Your task to perform on an android device: toggle location history Image 0: 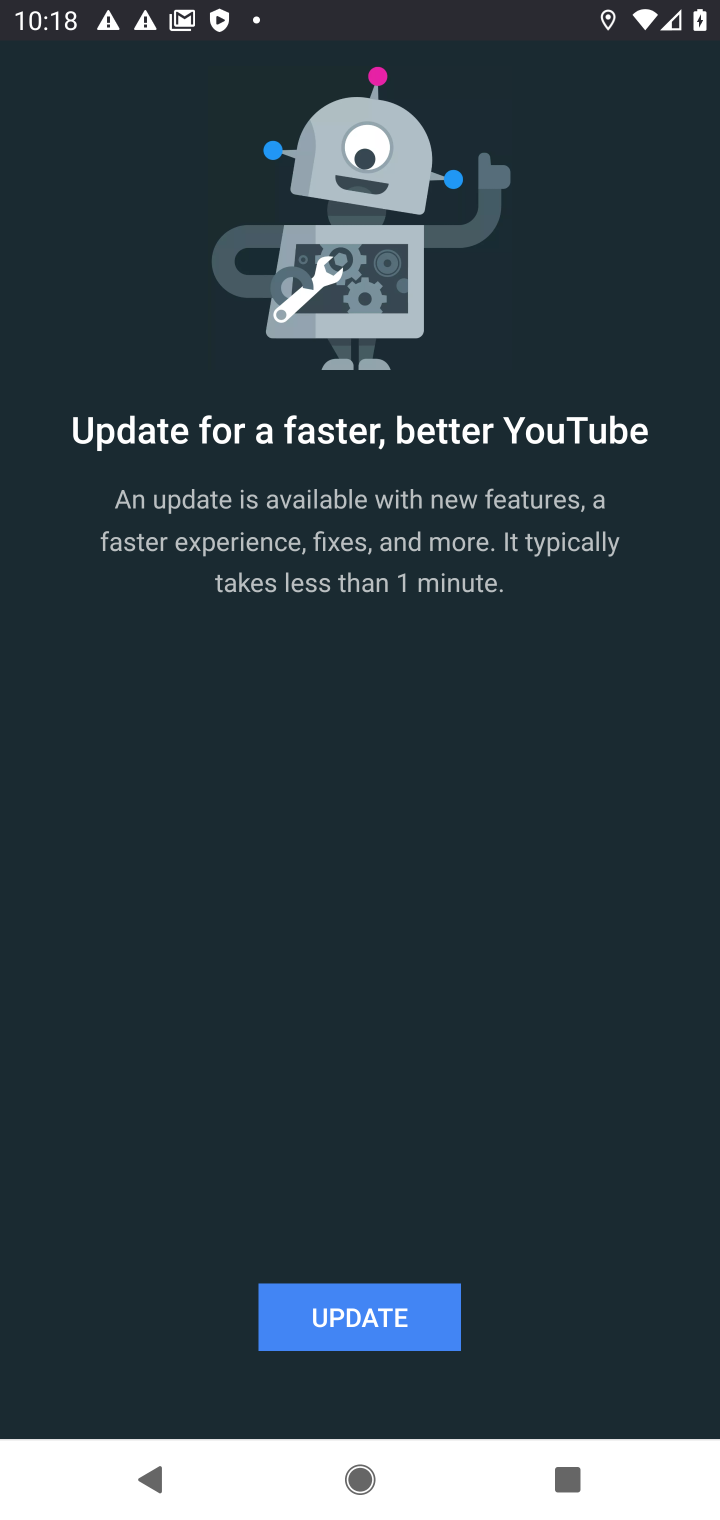
Step 0: press home button
Your task to perform on an android device: toggle location history Image 1: 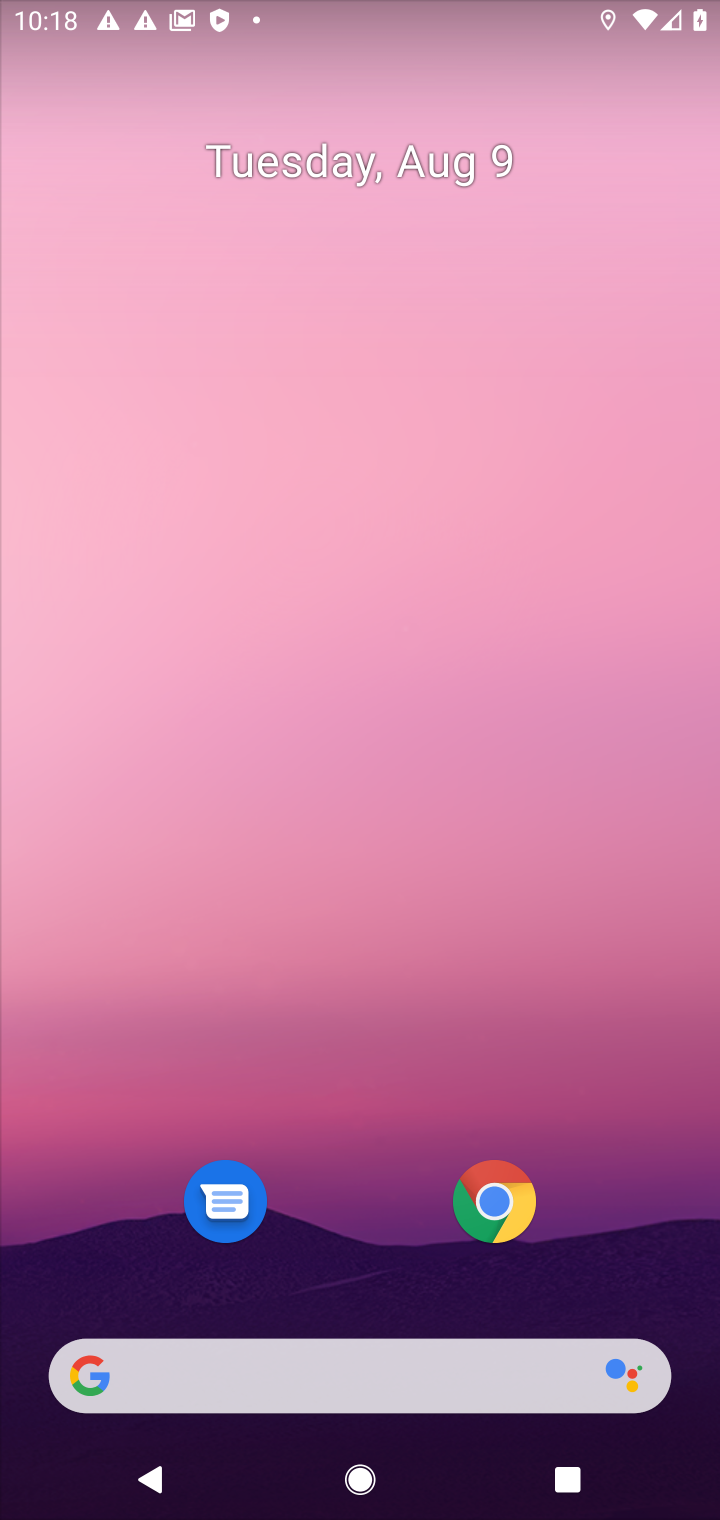
Step 1: drag from (488, 907) to (563, 202)
Your task to perform on an android device: toggle location history Image 2: 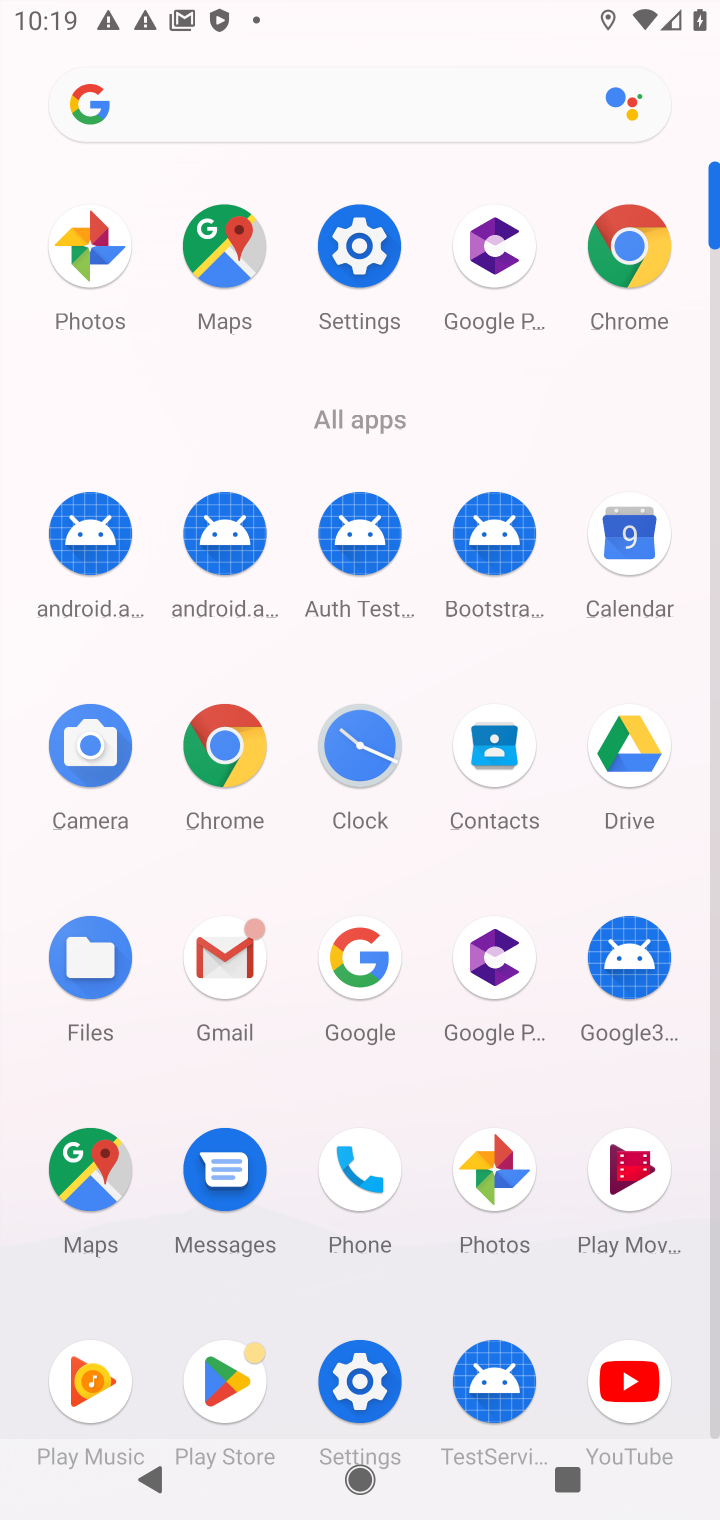
Step 2: click (367, 1383)
Your task to perform on an android device: toggle location history Image 3: 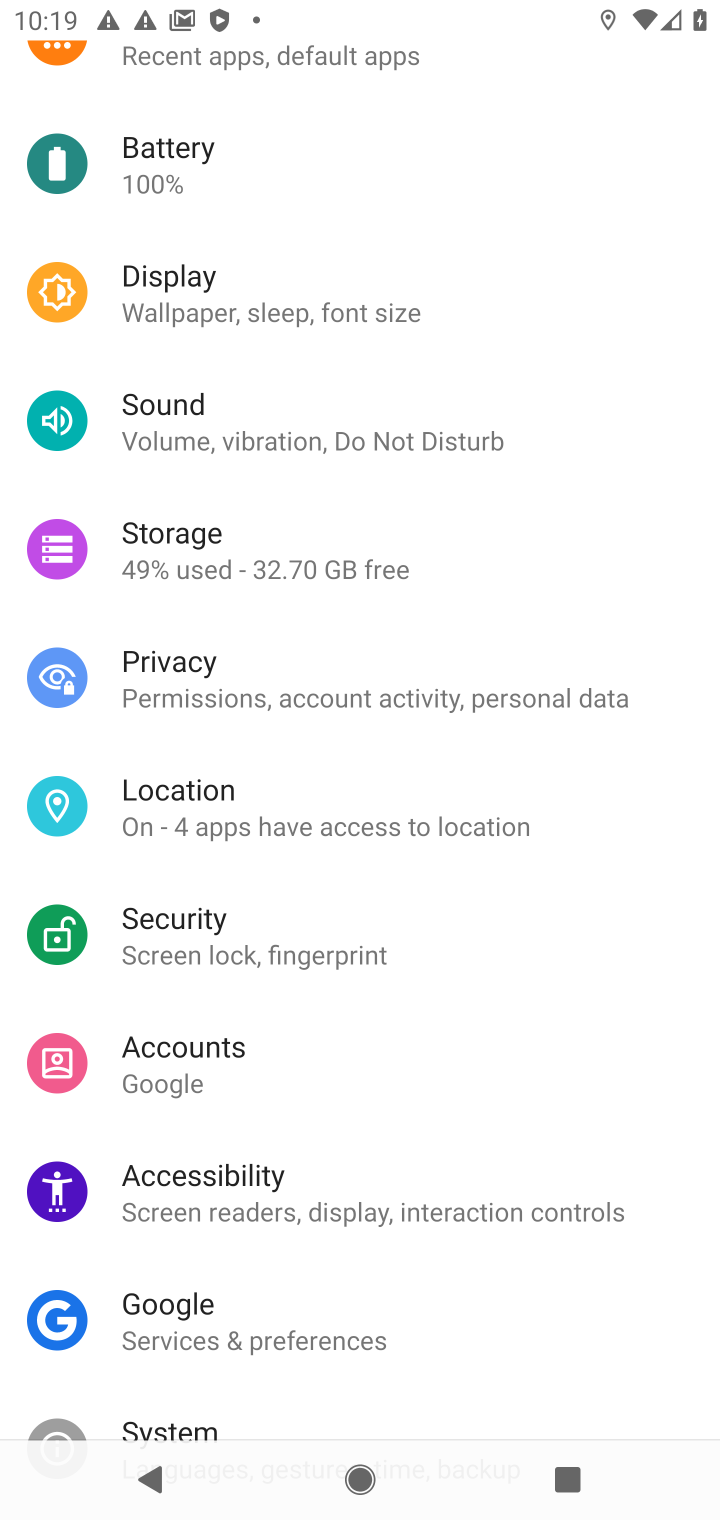
Step 3: task complete